Your task to perform on an android device: Show me popular videos on Youtube Image 0: 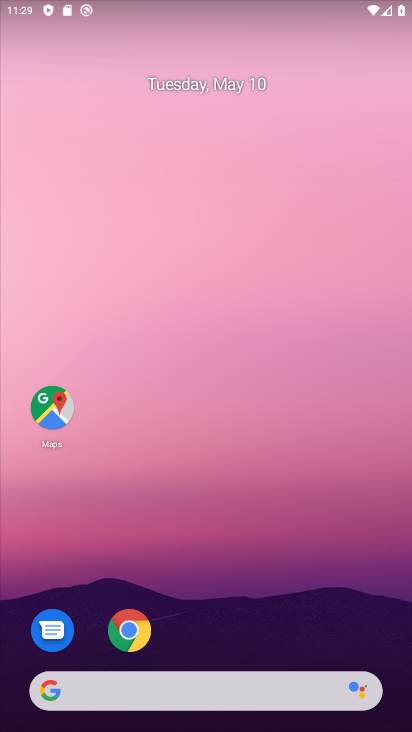
Step 0: drag from (272, 613) to (293, 105)
Your task to perform on an android device: Show me popular videos on Youtube Image 1: 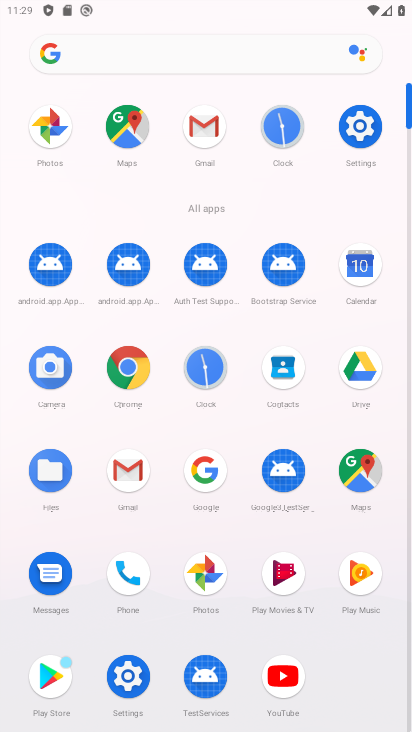
Step 1: click (273, 675)
Your task to perform on an android device: Show me popular videos on Youtube Image 2: 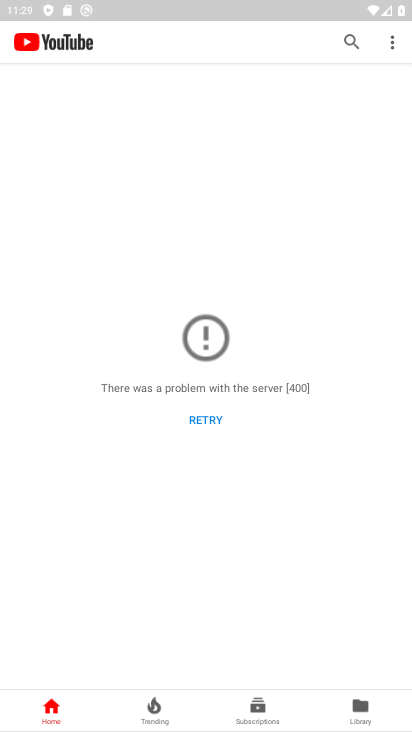
Step 2: task complete